Your task to perform on an android device: How much does the TCL TV cost? Image 0: 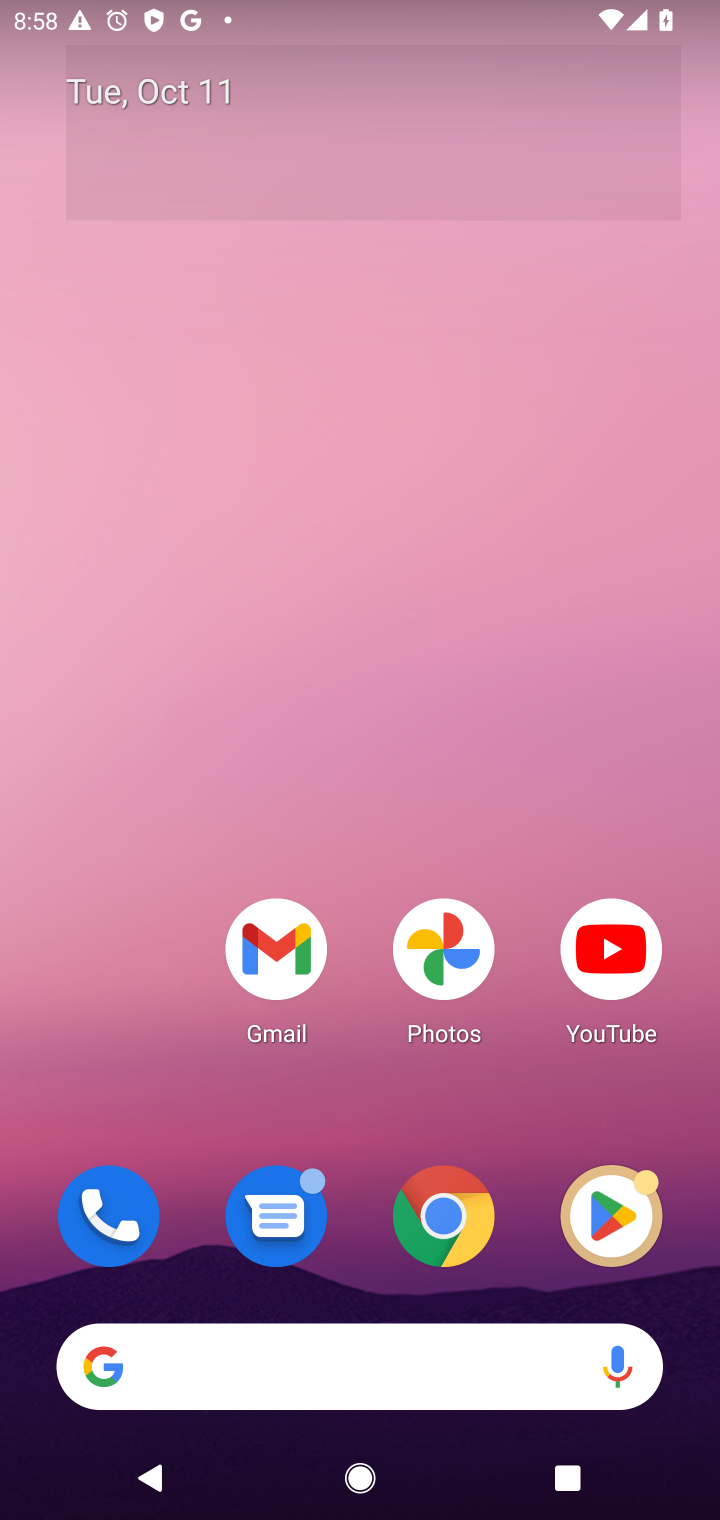
Step 0: click (422, 1260)
Your task to perform on an android device: How much does the TCL TV cost? Image 1: 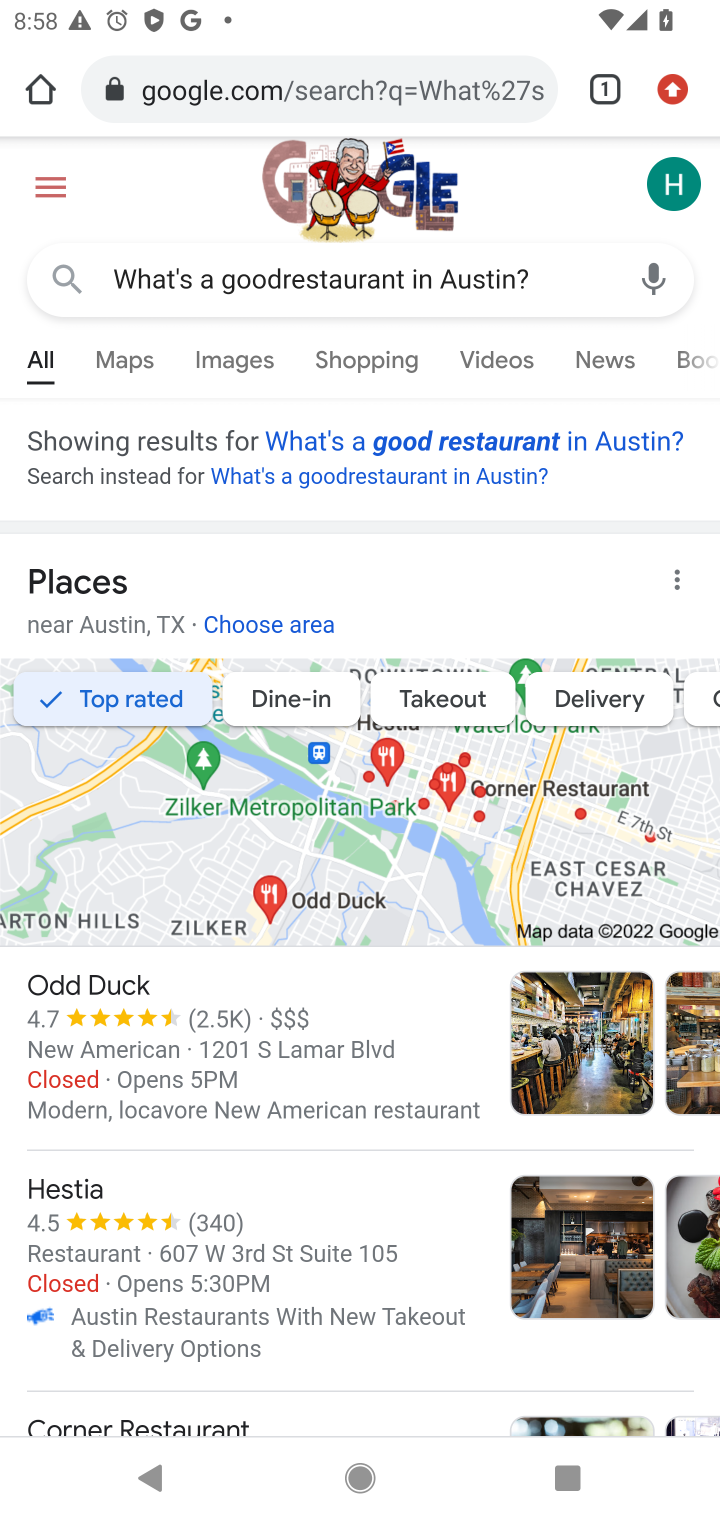
Step 1: click (545, 276)
Your task to perform on an android device: How much does the TCL TV cost? Image 2: 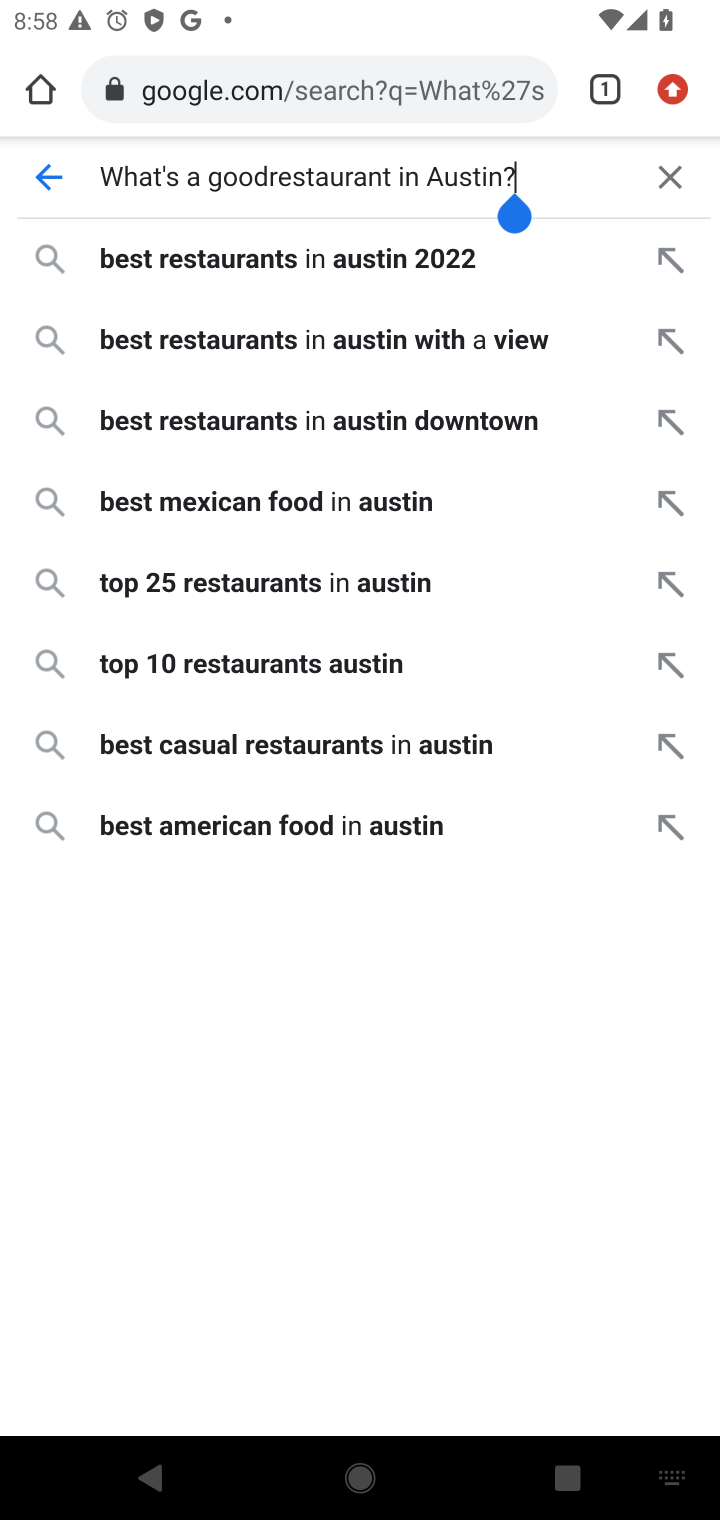
Step 2: click (664, 186)
Your task to perform on an android device: How much does the TCL TV cost? Image 3: 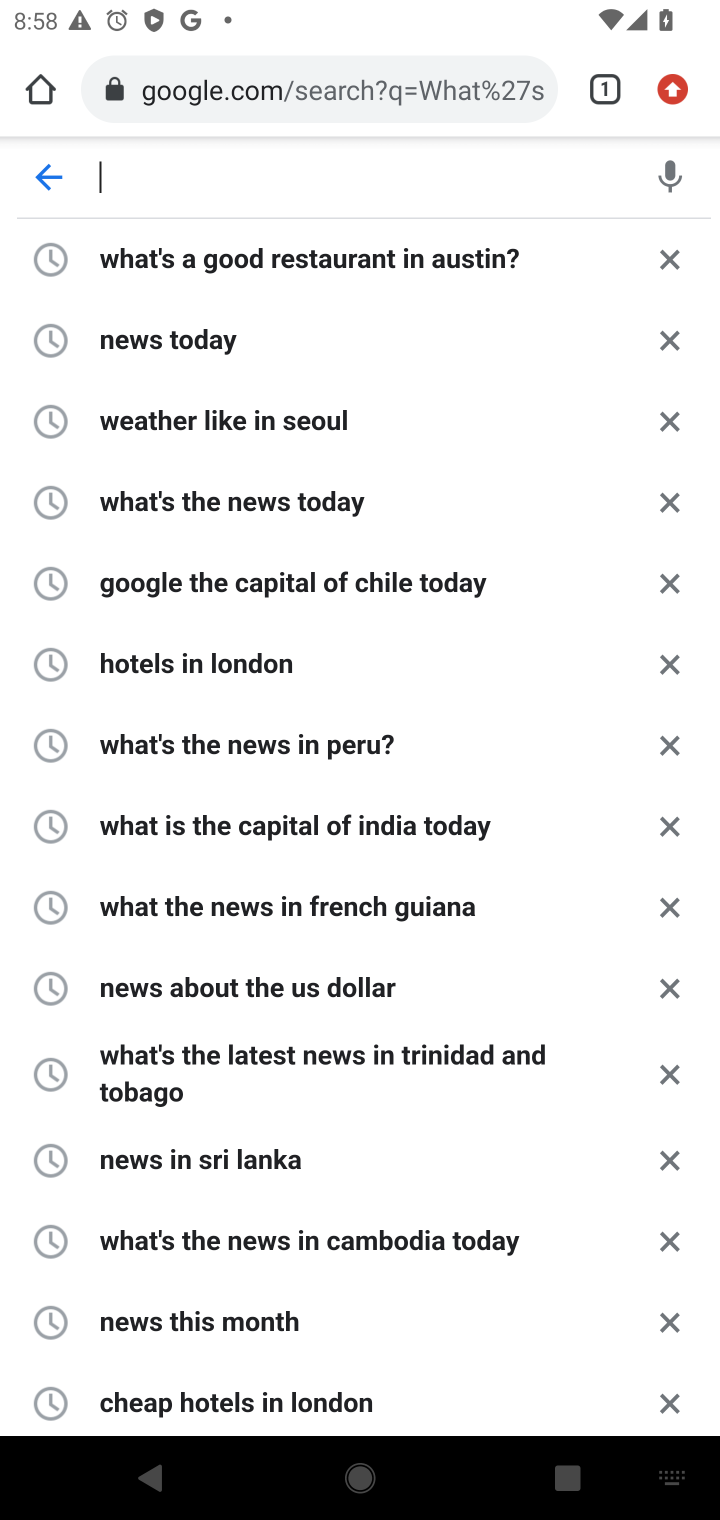
Step 3: type "How much does the TCL TV cost?"
Your task to perform on an android device: How much does the TCL TV cost? Image 4: 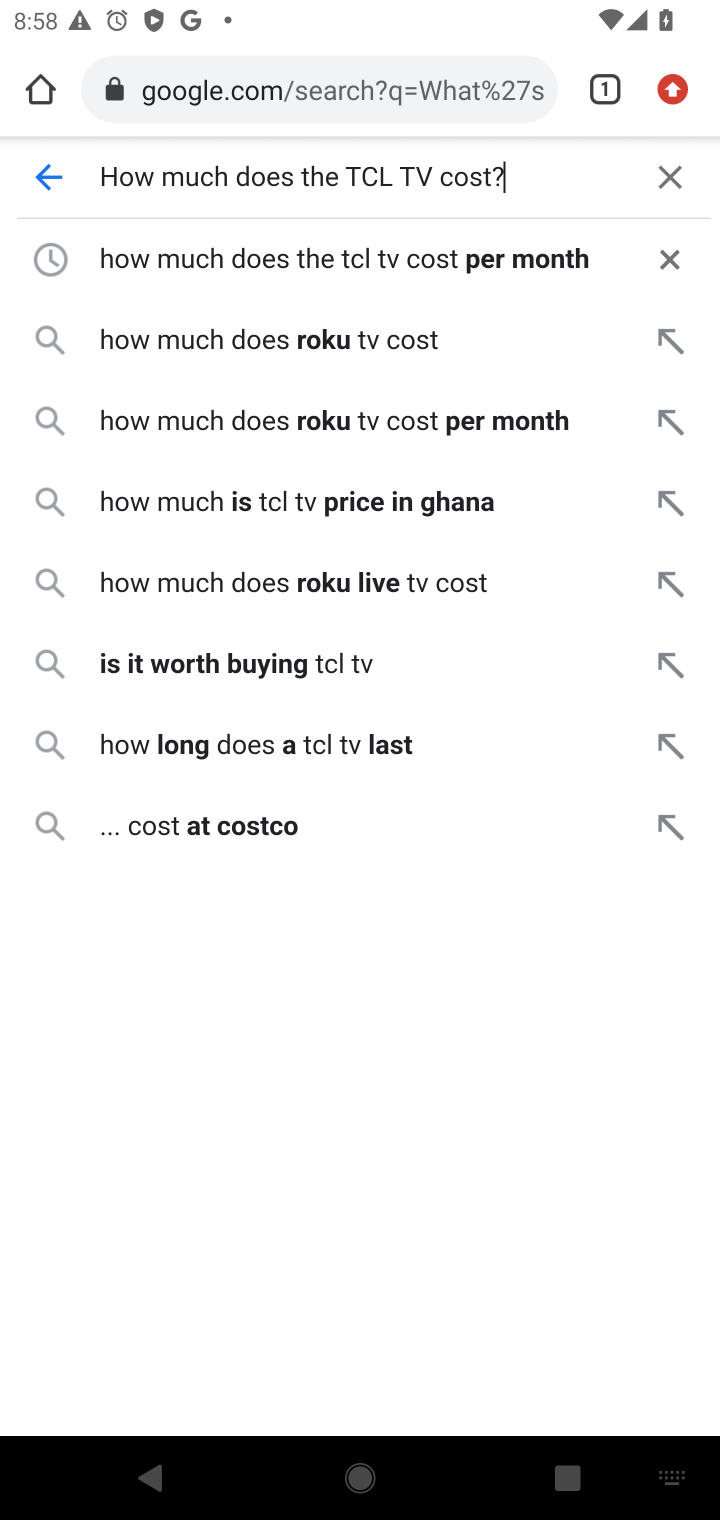
Step 4: press enter
Your task to perform on an android device: How much does the TCL TV cost? Image 5: 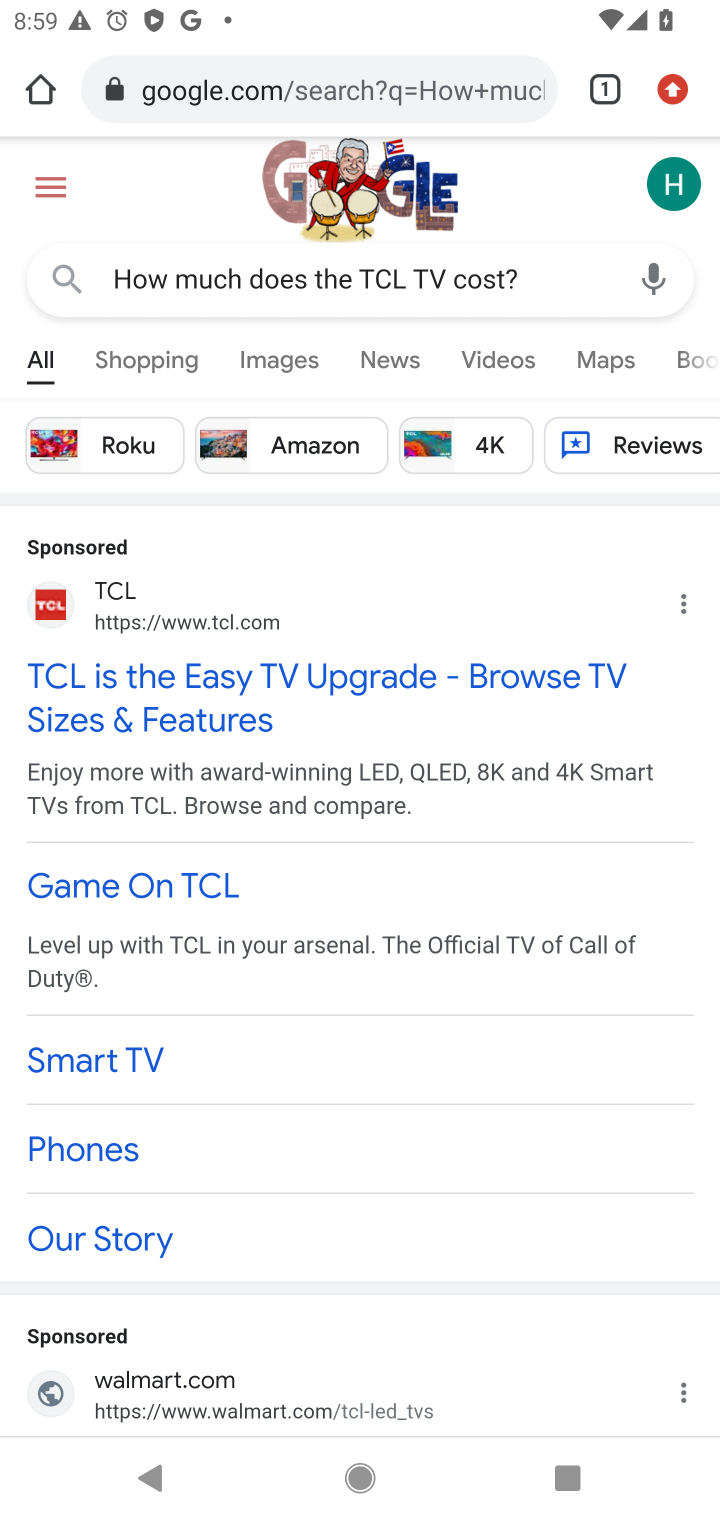
Step 5: click (375, 682)
Your task to perform on an android device: How much does the TCL TV cost? Image 6: 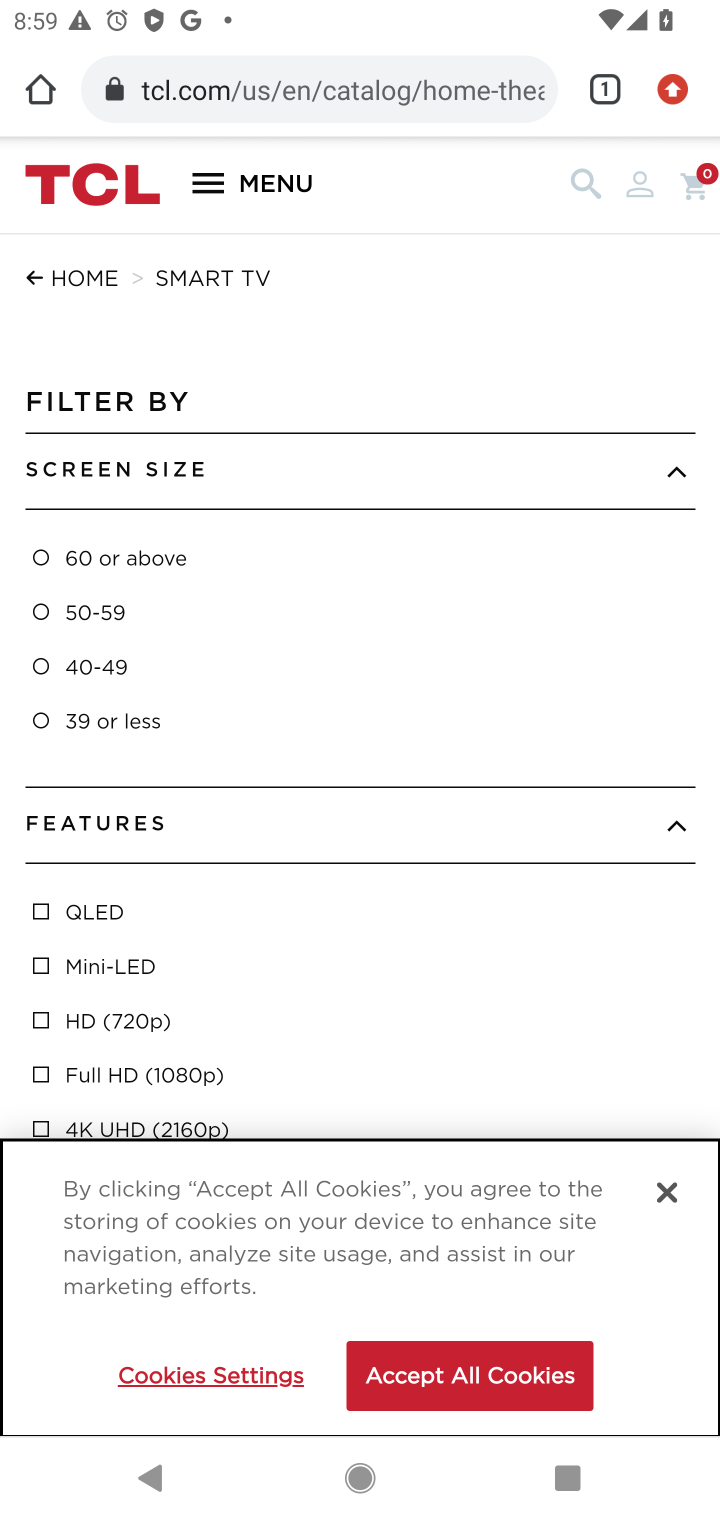
Step 6: task complete